Your task to perform on an android device: Open network settings Image 0: 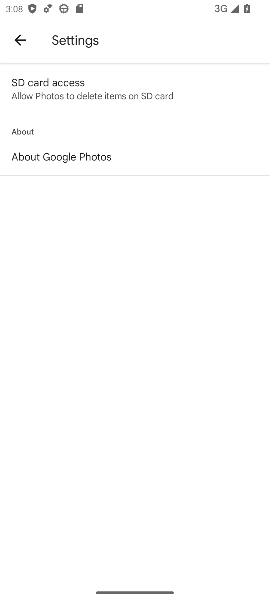
Step 0: press home button
Your task to perform on an android device: Open network settings Image 1: 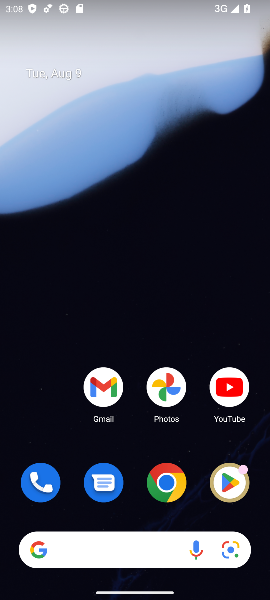
Step 1: drag from (123, 446) to (128, 118)
Your task to perform on an android device: Open network settings Image 2: 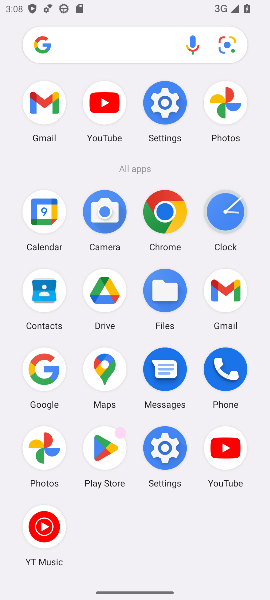
Step 2: click (158, 98)
Your task to perform on an android device: Open network settings Image 3: 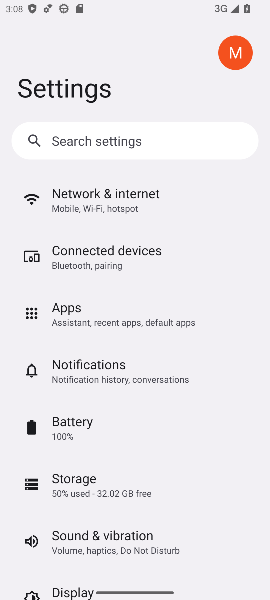
Step 3: click (114, 212)
Your task to perform on an android device: Open network settings Image 4: 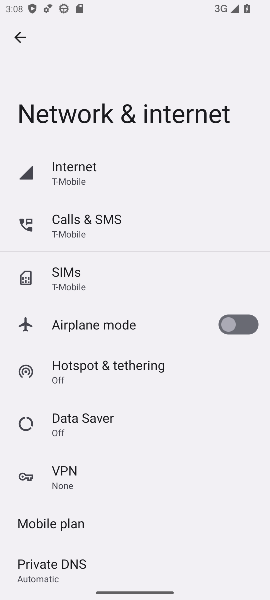
Step 4: task complete